Your task to perform on an android device: Open calendar and show me the third week of next month Image 0: 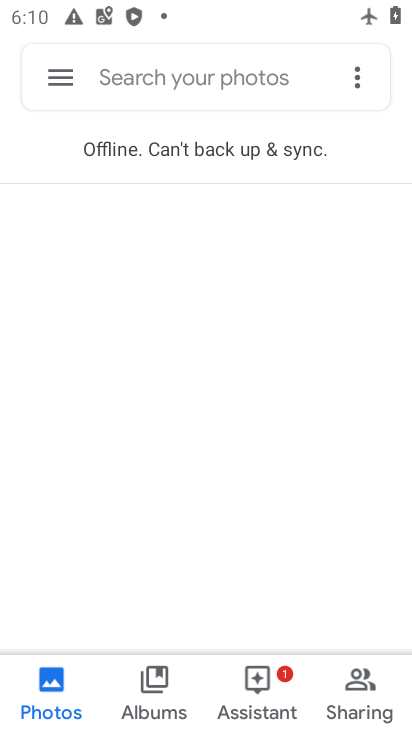
Step 0: press home button
Your task to perform on an android device: Open calendar and show me the third week of next month Image 1: 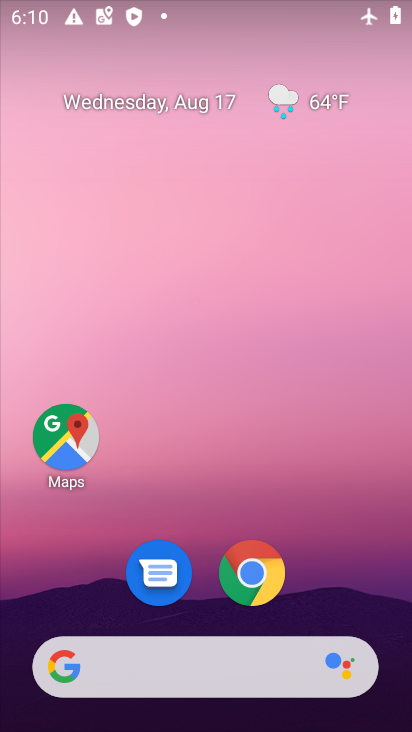
Step 1: drag from (325, 573) to (191, 83)
Your task to perform on an android device: Open calendar and show me the third week of next month Image 2: 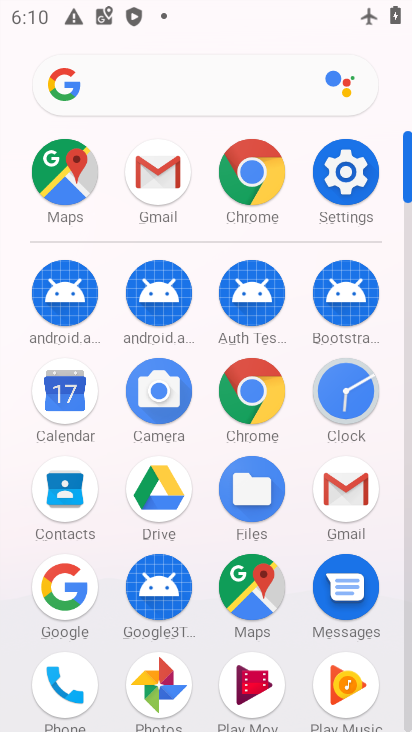
Step 2: click (52, 395)
Your task to perform on an android device: Open calendar and show me the third week of next month Image 3: 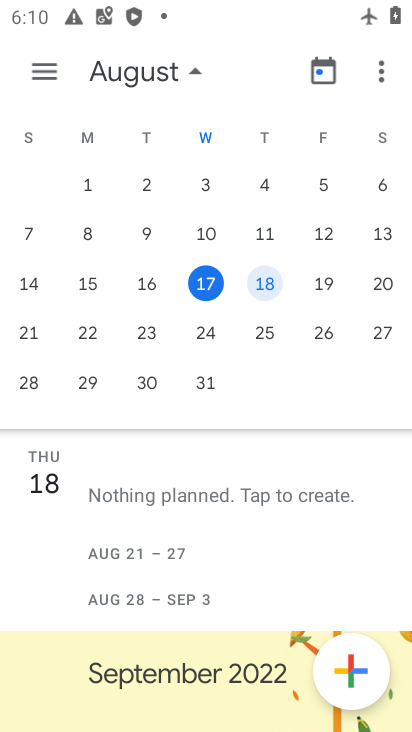
Step 3: drag from (345, 248) to (4, 291)
Your task to perform on an android device: Open calendar and show me the third week of next month Image 4: 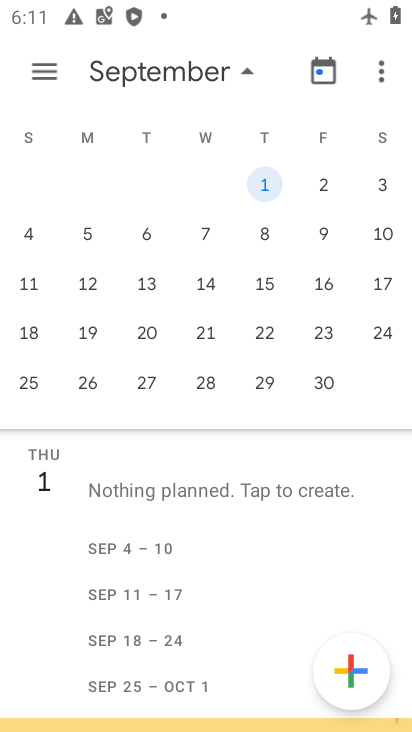
Step 4: click (206, 341)
Your task to perform on an android device: Open calendar and show me the third week of next month Image 5: 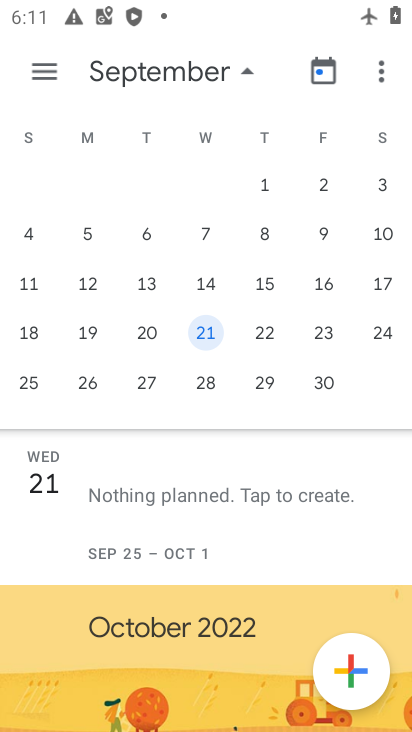
Step 5: task complete